Your task to perform on an android device: Go to wifi settings Image 0: 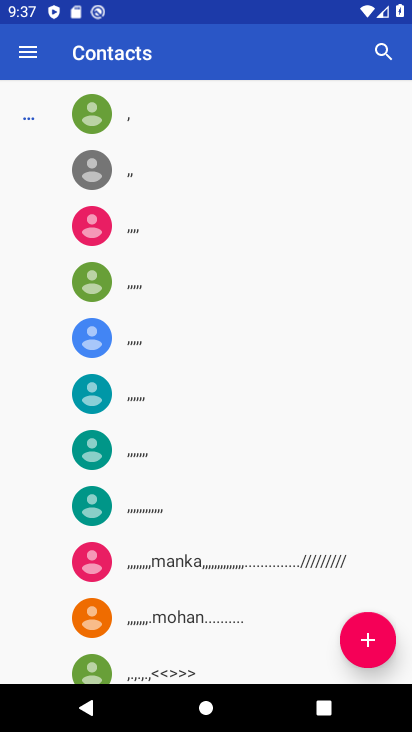
Step 0: press home button
Your task to perform on an android device: Go to wifi settings Image 1: 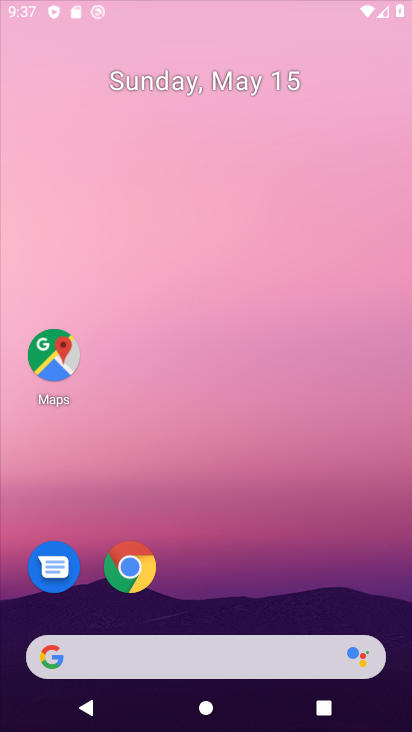
Step 1: drag from (223, 595) to (197, 150)
Your task to perform on an android device: Go to wifi settings Image 2: 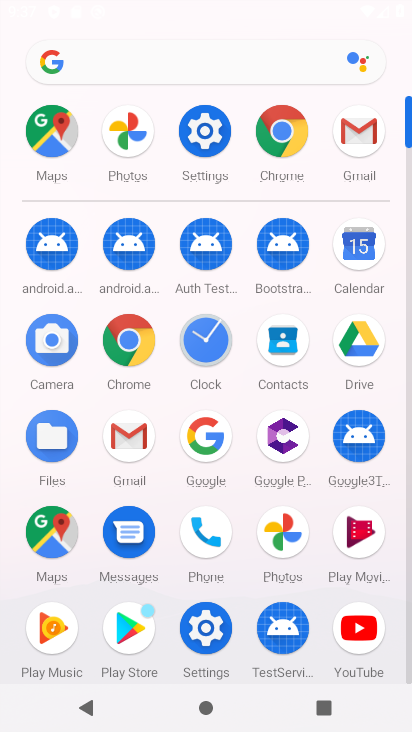
Step 2: click (203, 126)
Your task to perform on an android device: Go to wifi settings Image 3: 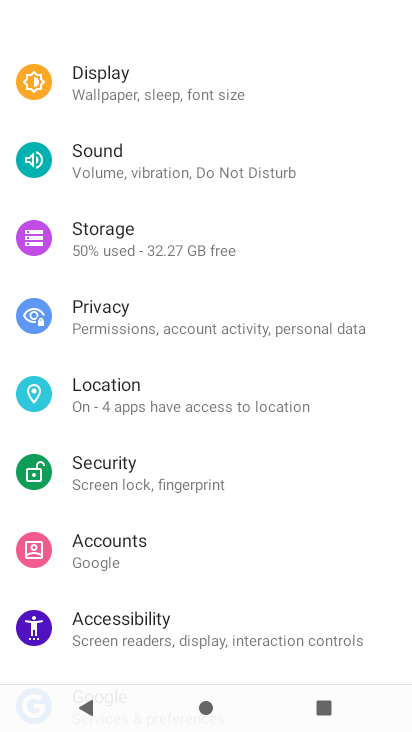
Step 3: drag from (219, 135) to (267, 616)
Your task to perform on an android device: Go to wifi settings Image 4: 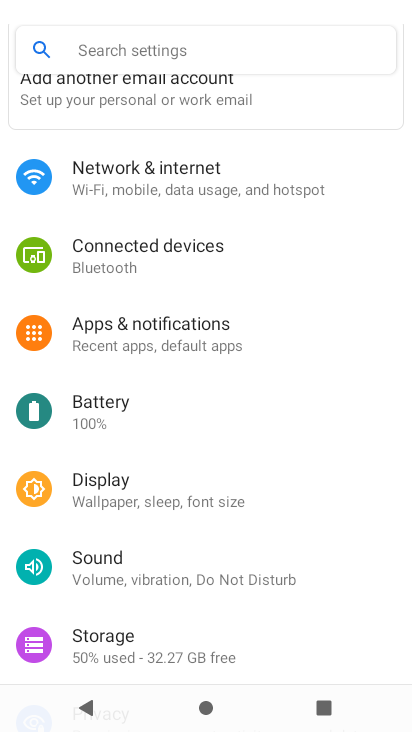
Step 4: click (184, 195)
Your task to perform on an android device: Go to wifi settings Image 5: 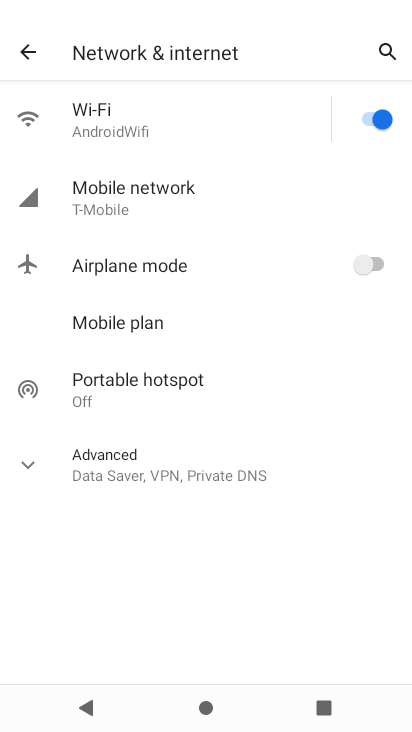
Step 5: click (110, 108)
Your task to perform on an android device: Go to wifi settings Image 6: 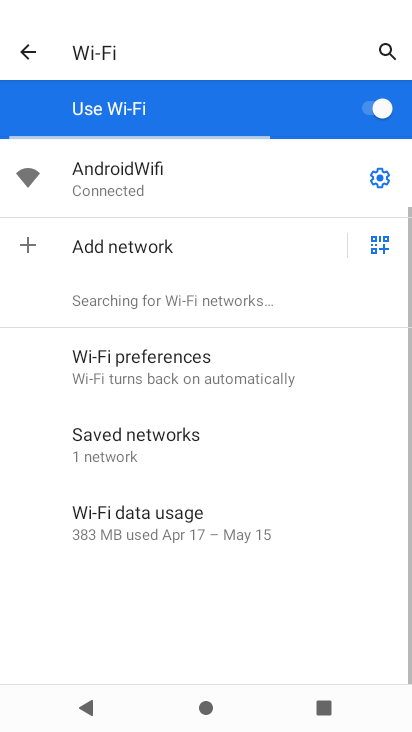
Step 6: click (382, 180)
Your task to perform on an android device: Go to wifi settings Image 7: 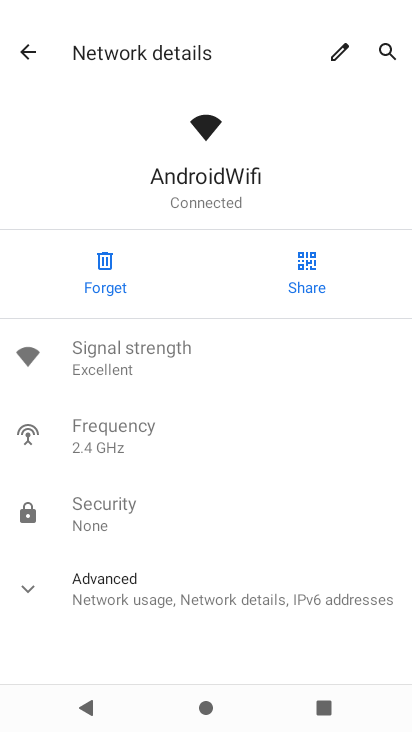
Step 7: task complete